Your task to perform on an android device: turn off sleep mode Image 0: 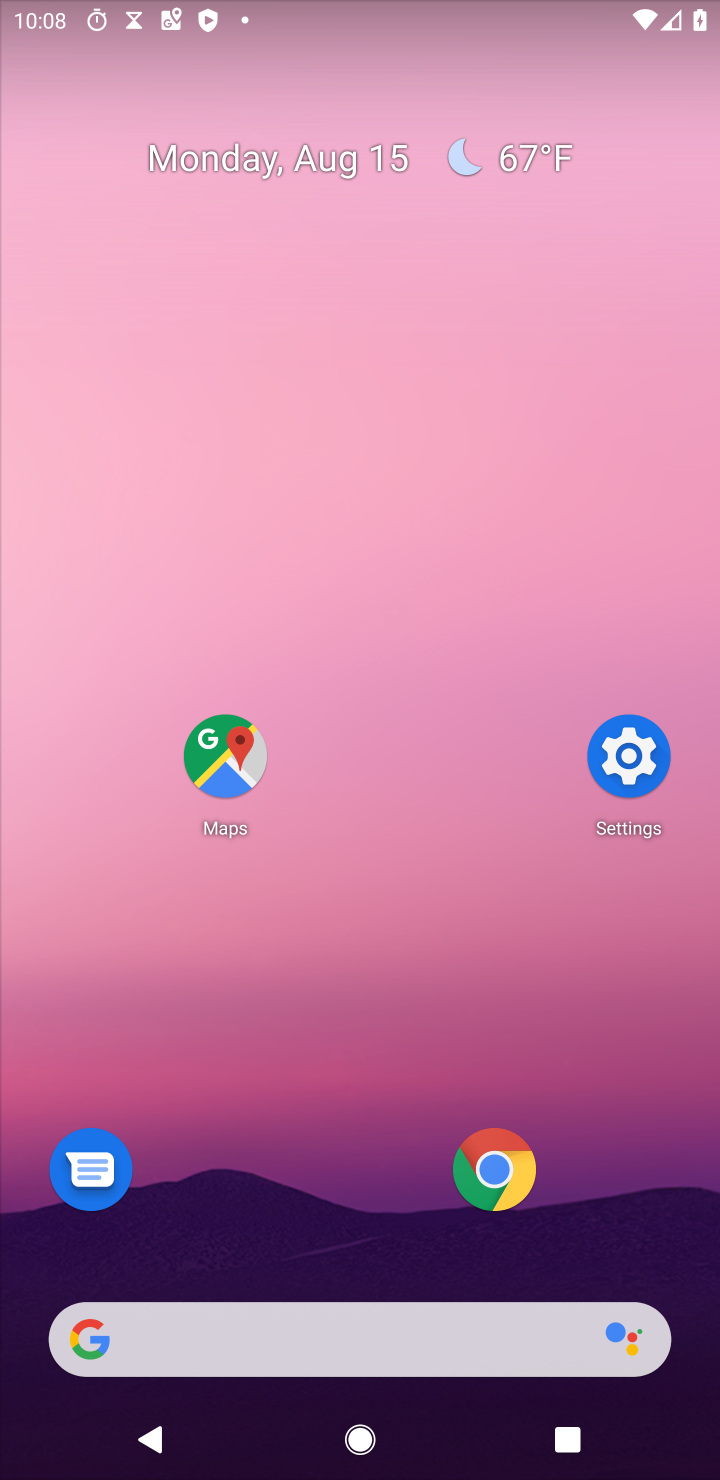
Step 0: click (637, 744)
Your task to perform on an android device: turn off sleep mode Image 1: 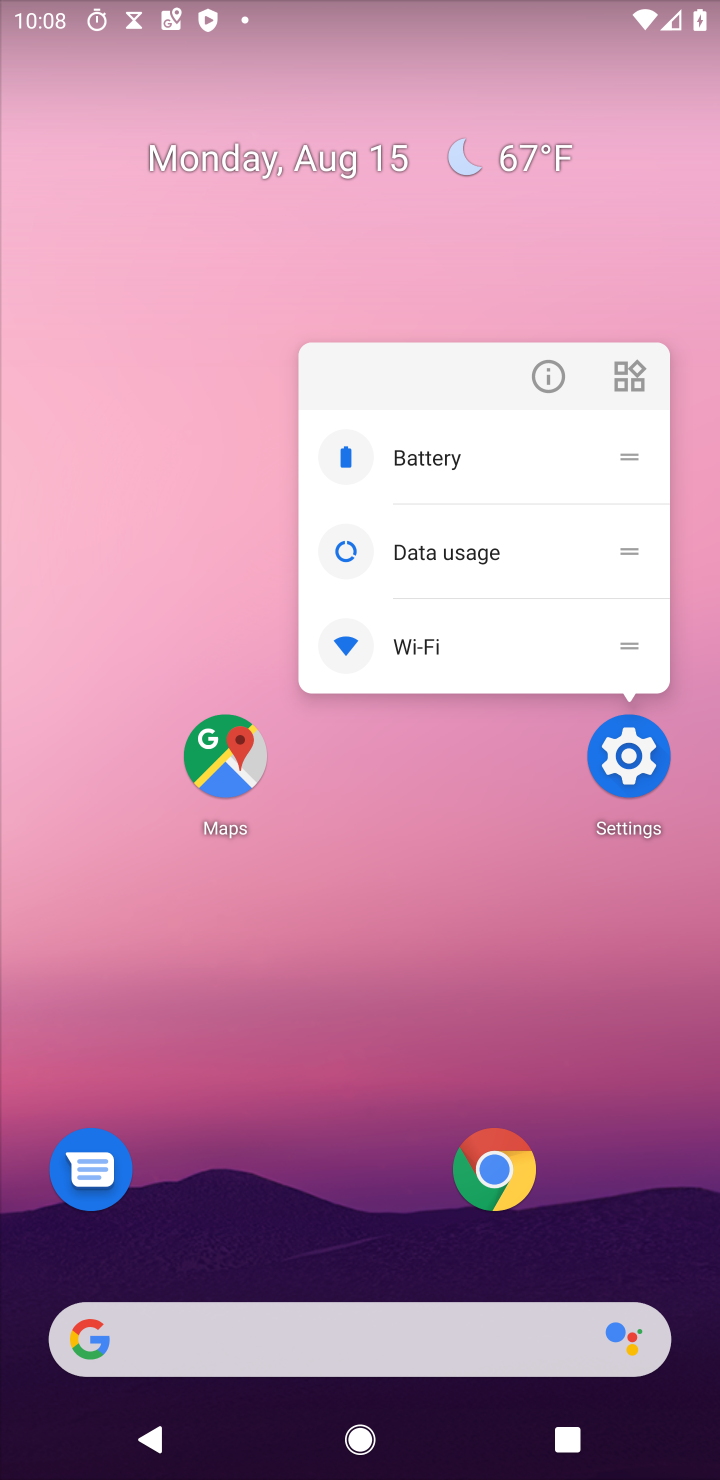
Step 1: click (637, 752)
Your task to perform on an android device: turn off sleep mode Image 2: 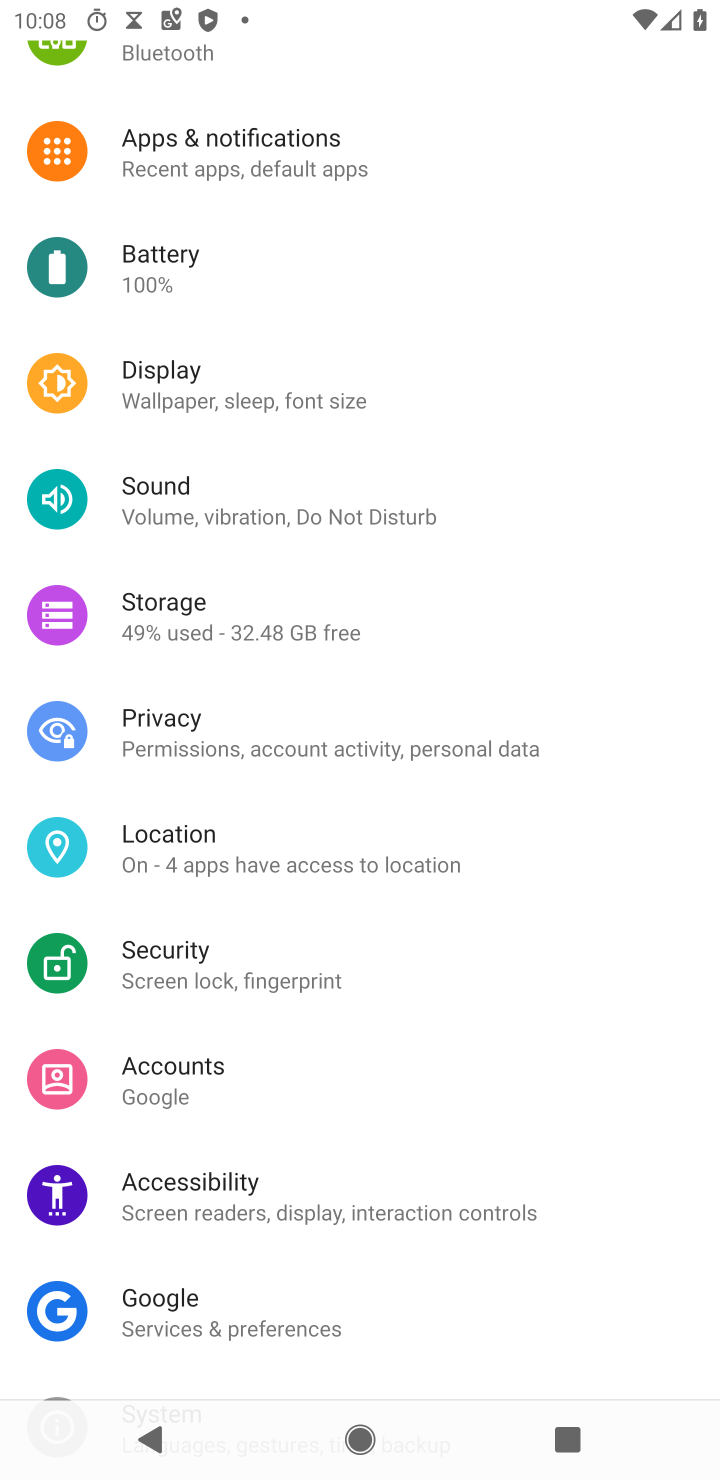
Step 2: click (284, 401)
Your task to perform on an android device: turn off sleep mode Image 3: 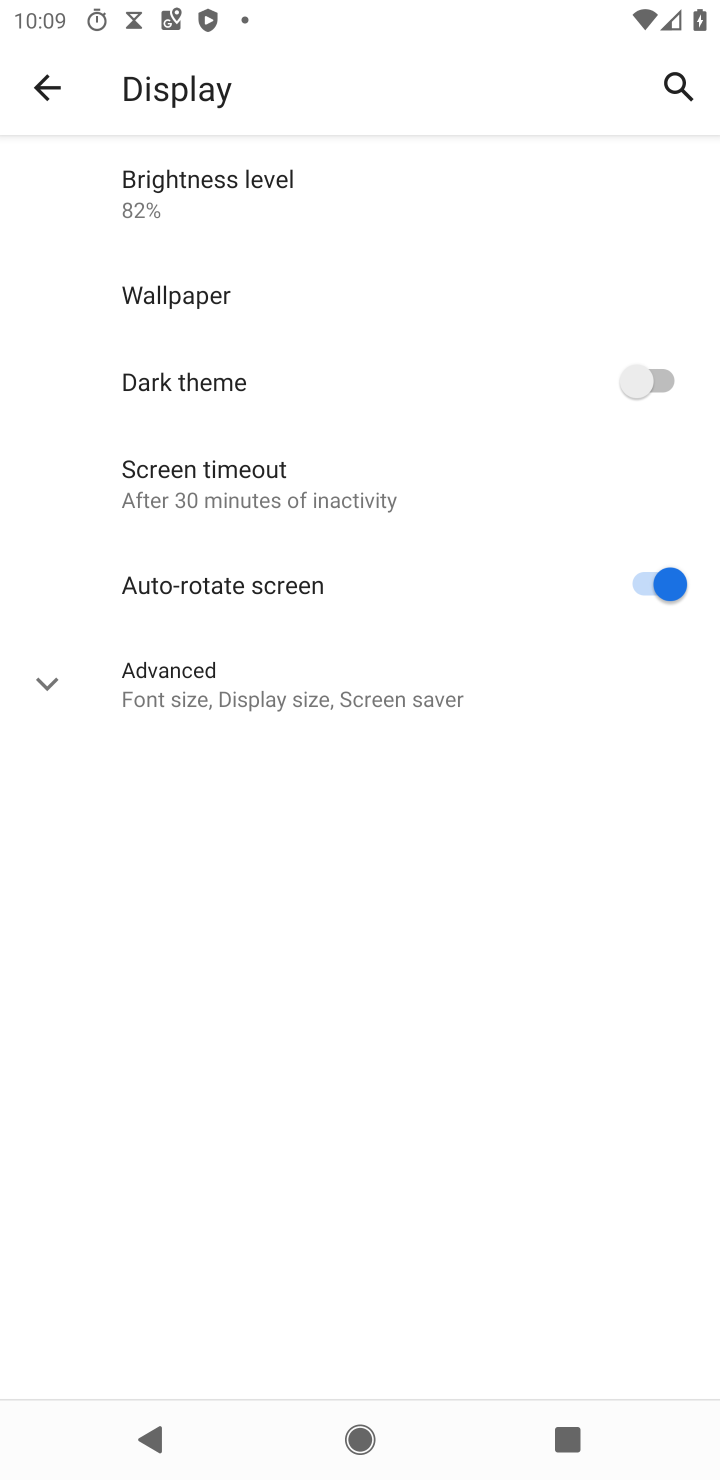
Step 3: task complete